Your task to perform on an android device: read, delete, or share a saved page in the chrome app Image 0: 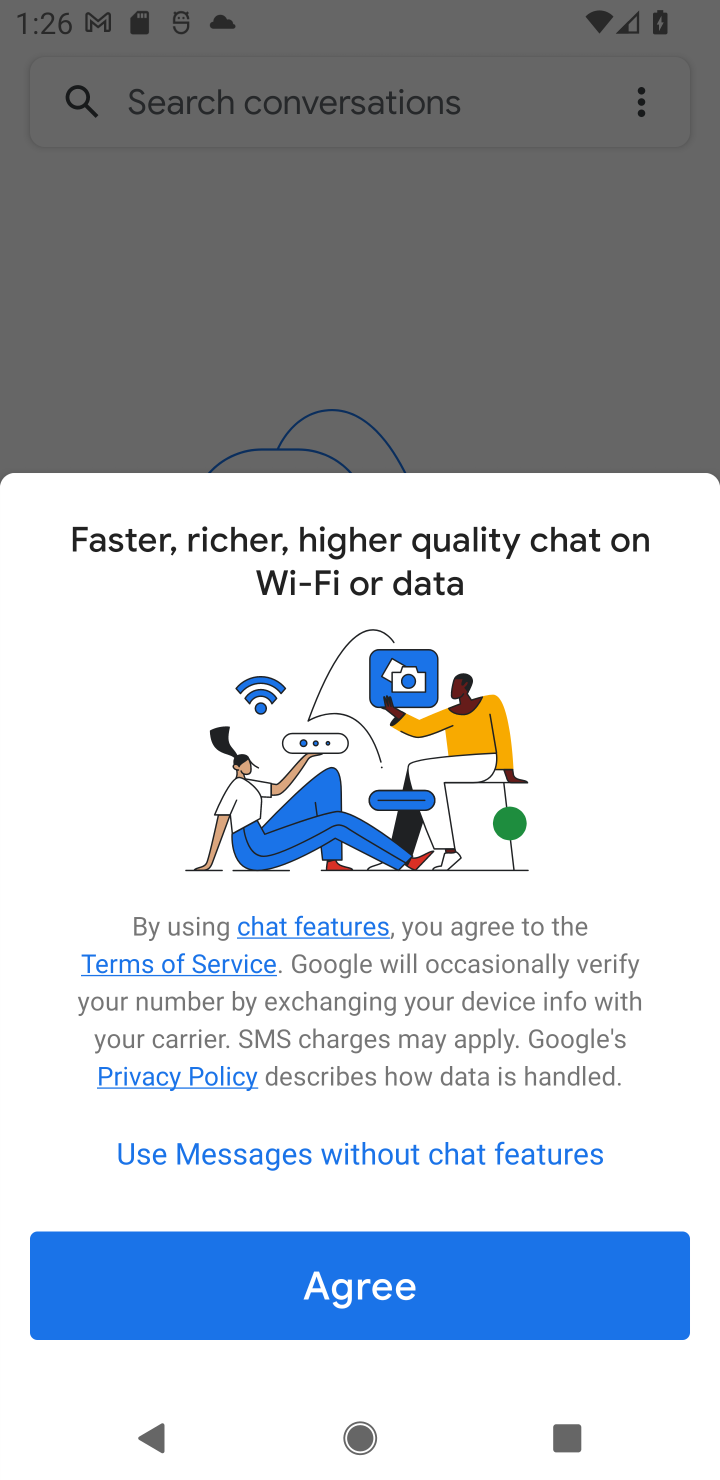
Step 0: press home button
Your task to perform on an android device: read, delete, or share a saved page in the chrome app Image 1: 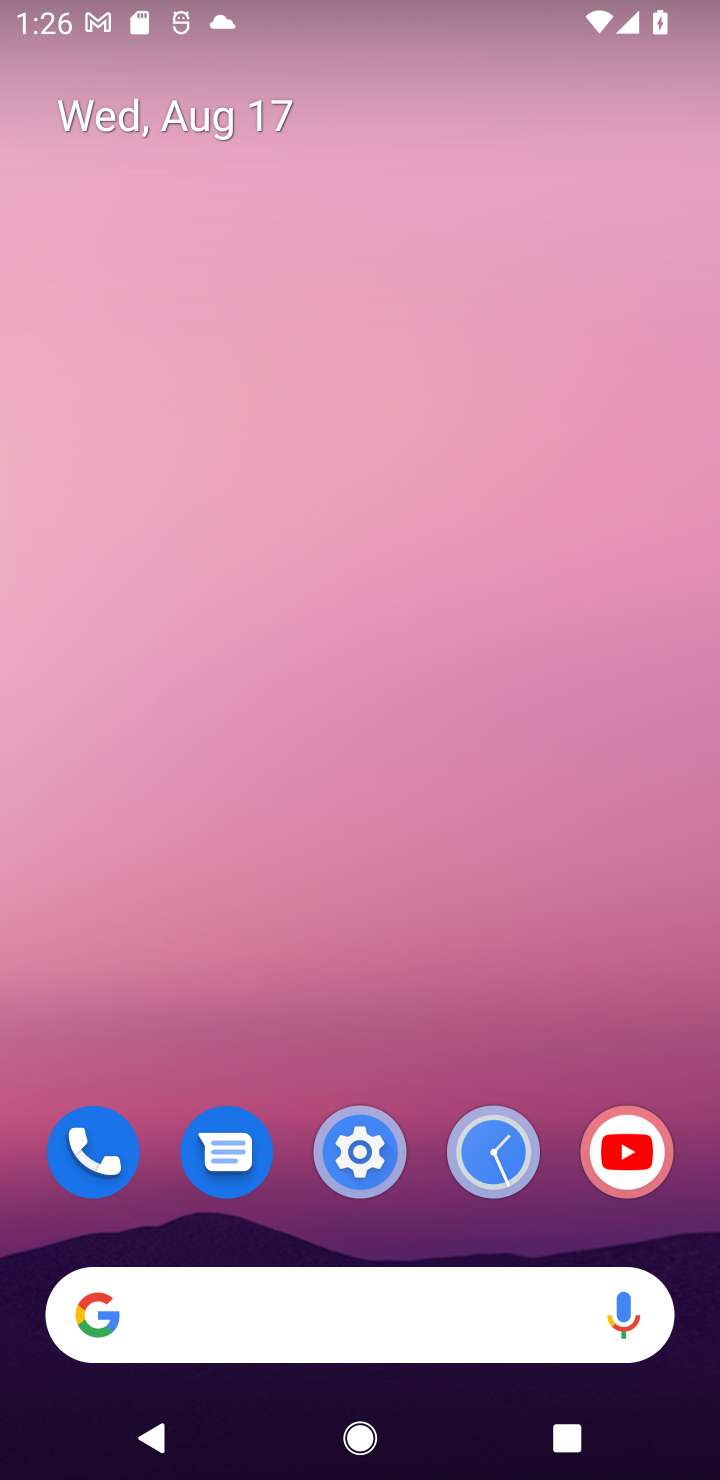
Step 1: drag from (687, 1065) to (422, 40)
Your task to perform on an android device: read, delete, or share a saved page in the chrome app Image 2: 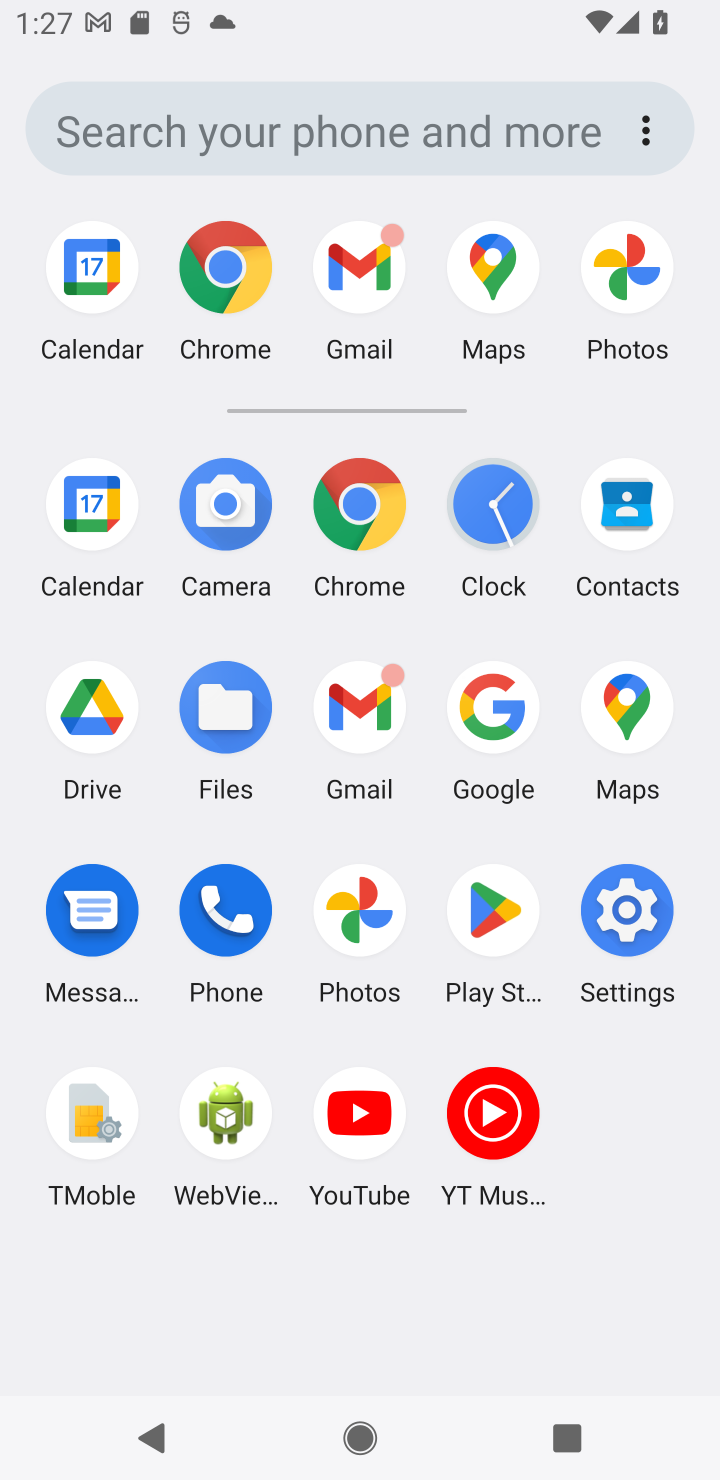
Step 2: click (374, 489)
Your task to perform on an android device: read, delete, or share a saved page in the chrome app Image 3: 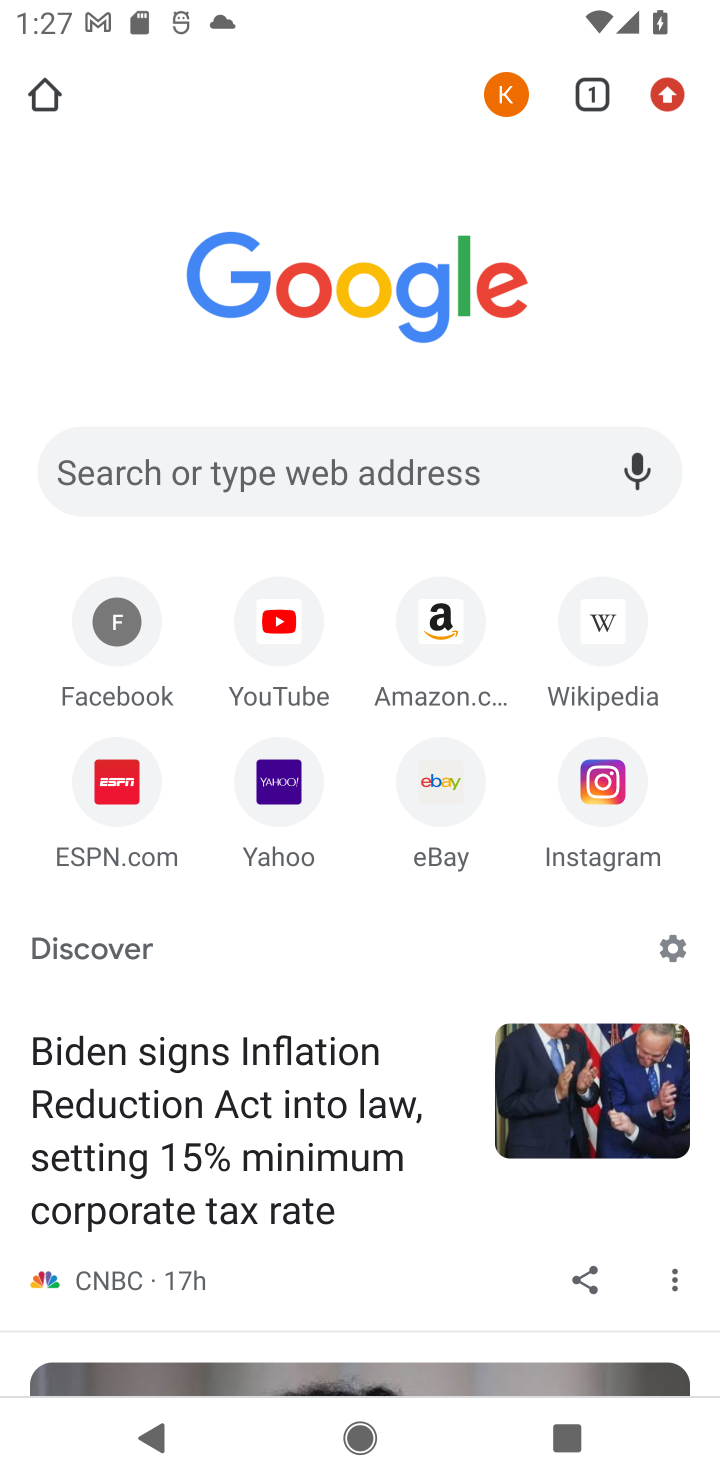
Step 3: task complete